Your task to perform on an android device: Search for pizza restaurants on Maps Image 0: 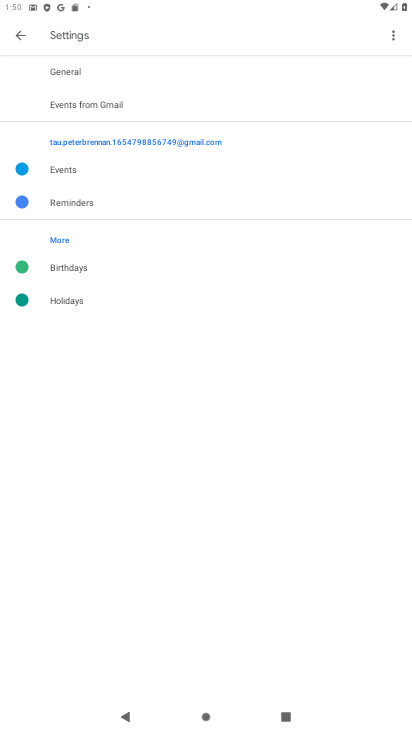
Step 0: press home button
Your task to perform on an android device: Search for pizza restaurants on Maps Image 1: 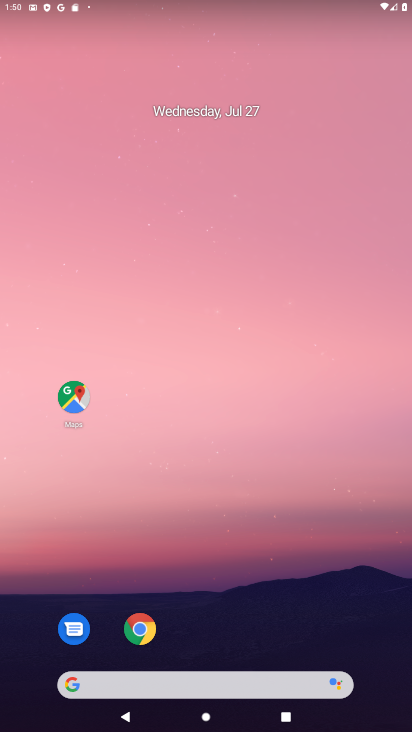
Step 1: click (66, 423)
Your task to perform on an android device: Search for pizza restaurants on Maps Image 2: 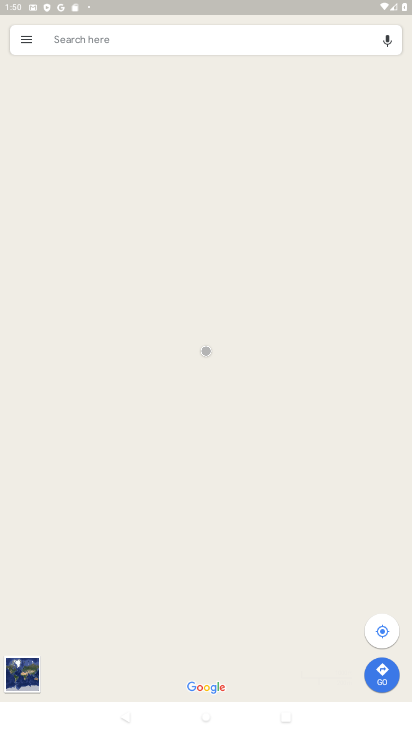
Step 2: click (149, 50)
Your task to perform on an android device: Search for pizza restaurants on Maps Image 3: 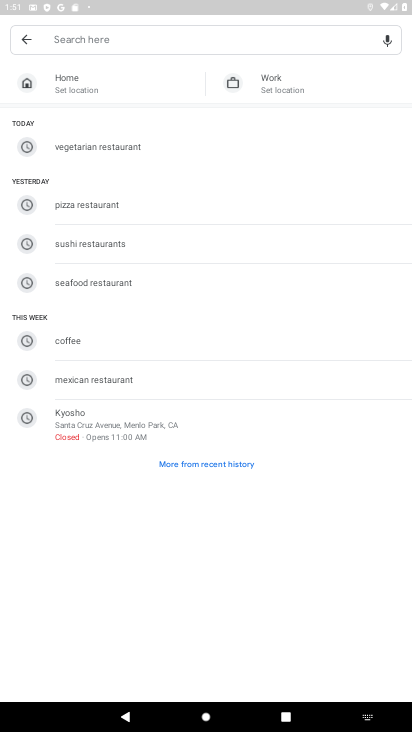
Step 3: click (115, 215)
Your task to perform on an android device: Search for pizza restaurants on Maps Image 4: 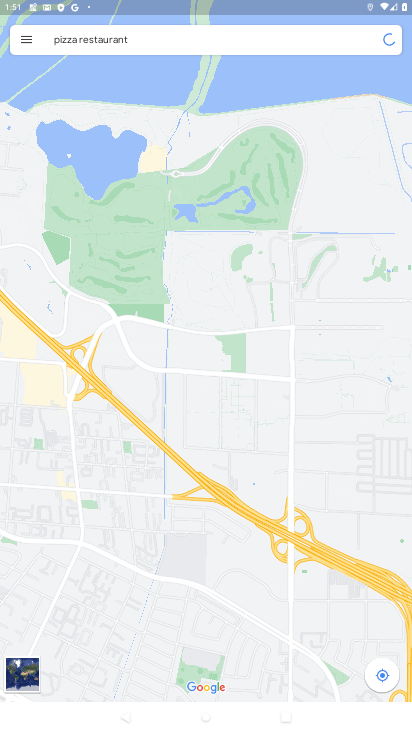
Step 4: task complete